Your task to perform on an android device: Open the calendar app, open the side menu, and click the "Day" option Image 0: 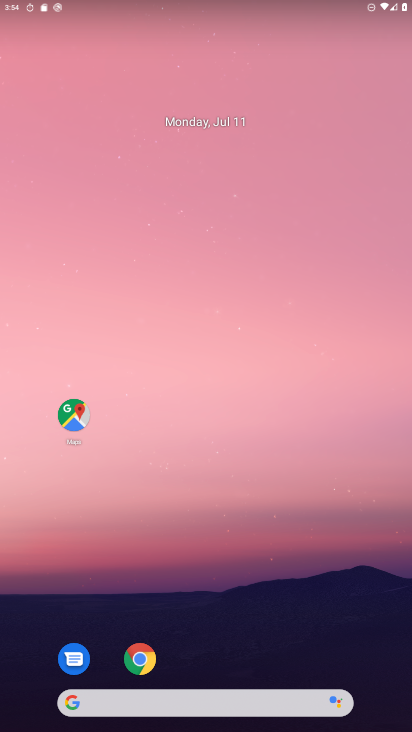
Step 0: drag from (195, 638) to (208, 169)
Your task to perform on an android device: Open the calendar app, open the side menu, and click the "Day" option Image 1: 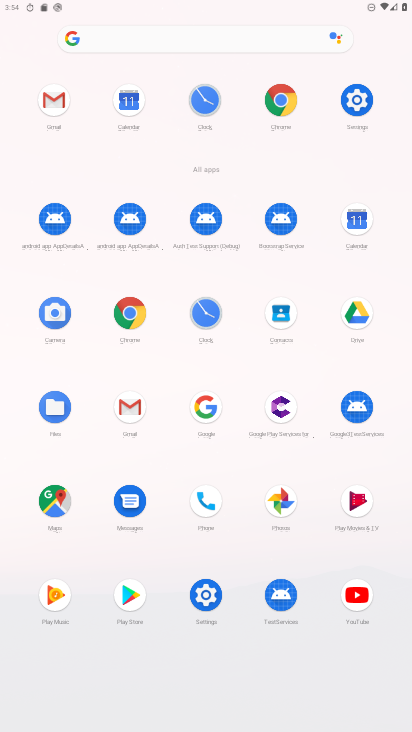
Step 1: click (361, 219)
Your task to perform on an android device: Open the calendar app, open the side menu, and click the "Day" option Image 2: 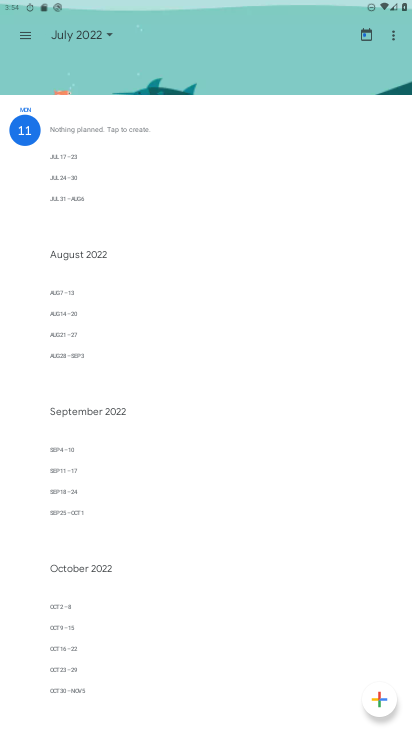
Step 2: click (34, 30)
Your task to perform on an android device: Open the calendar app, open the side menu, and click the "Day" option Image 3: 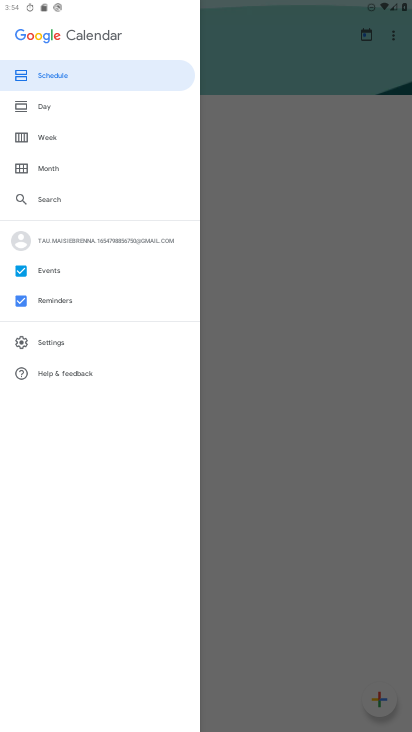
Step 3: click (34, 30)
Your task to perform on an android device: Open the calendar app, open the side menu, and click the "Day" option Image 4: 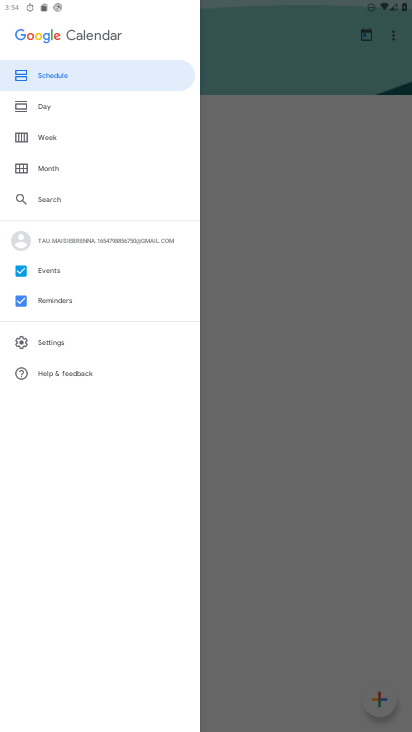
Step 4: click (49, 103)
Your task to perform on an android device: Open the calendar app, open the side menu, and click the "Day" option Image 5: 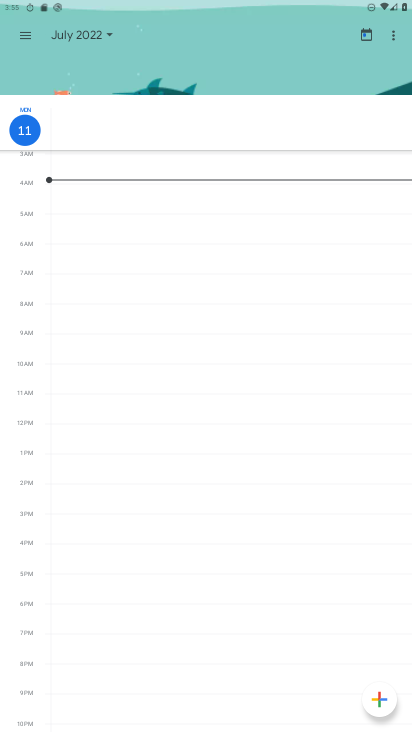
Step 5: task complete